Your task to perform on an android device: manage bookmarks in the chrome app Image 0: 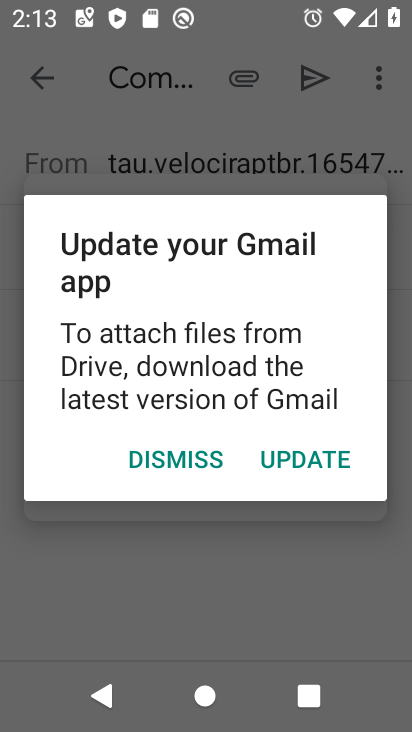
Step 0: press back button
Your task to perform on an android device: manage bookmarks in the chrome app Image 1: 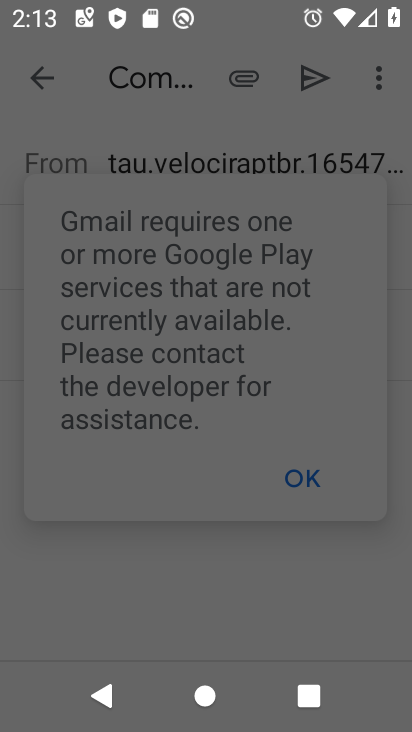
Step 1: press back button
Your task to perform on an android device: manage bookmarks in the chrome app Image 2: 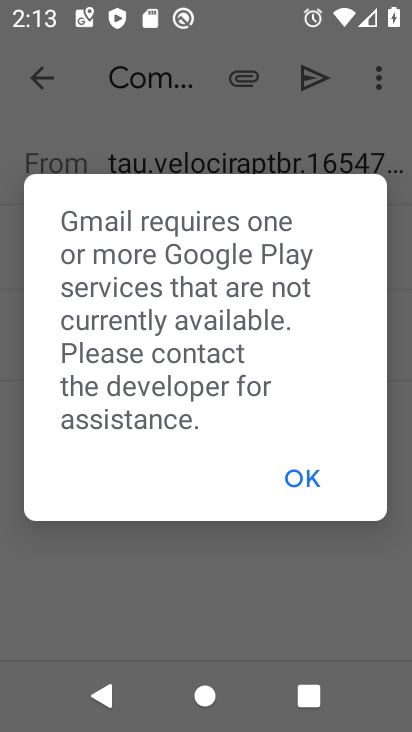
Step 2: click (284, 468)
Your task to perform on an android device: manage bookmarks in the chrome app Image 3: 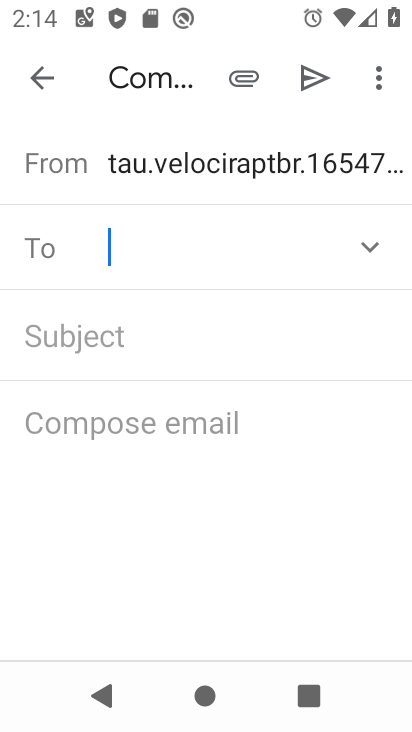
Step 3: press back button
Your task to perform on an android device: manage bookmarks in the chrome app Image 4: 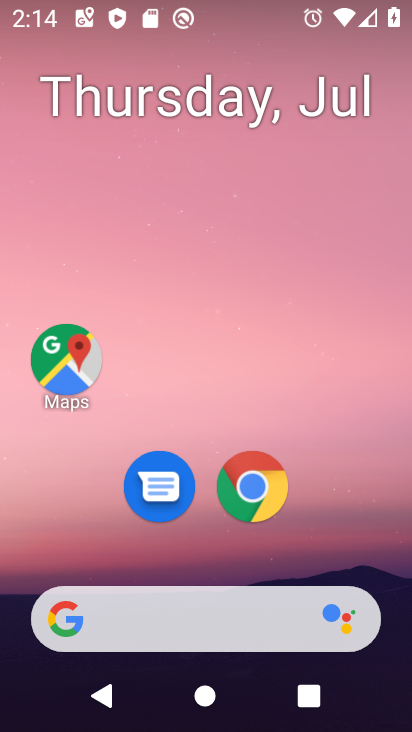
Step 4: click (245, 487)
Your task to perform on an android device: manage bookmarks in the chrome app Image 5: 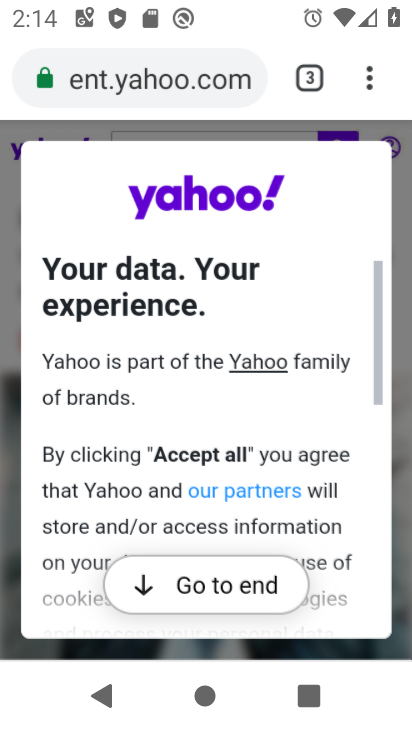
Step 5: drag from (372, 73) to (191, 291)
Your task to perform on an android device: manage bookmarks in the chrome app Image 6: 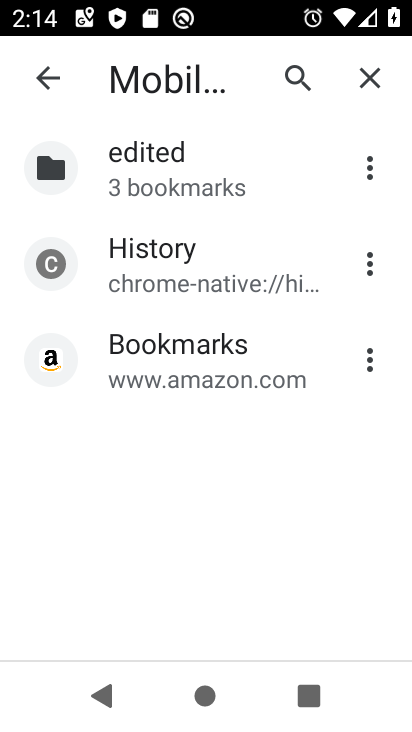
Step 6: click (370, 260)
Your task to perform on an android device: manage bookmarks in the chrome app Image 7: 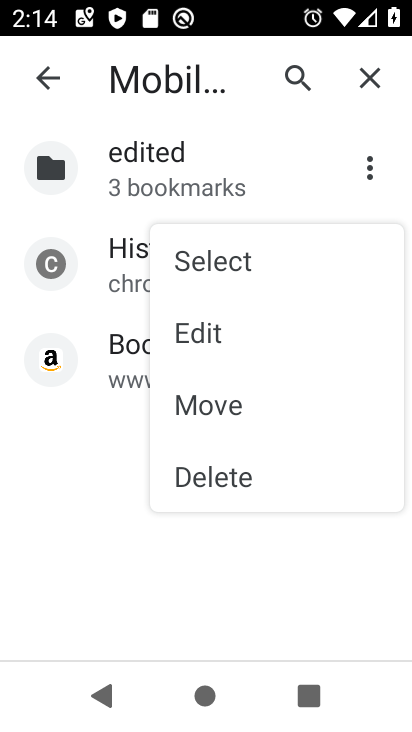
Step 7: click (219, 464)
Your task to perform on an android device: manage bookmarks in the chrome app Image 8: 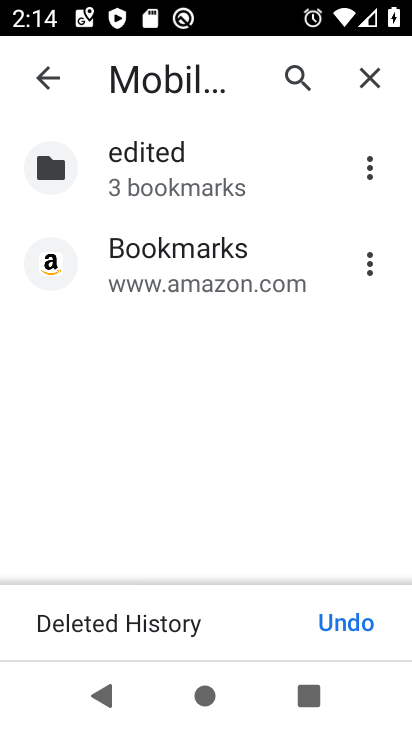
Step 8: task complete